Your task to perform on an android device: Open Chrome and go to the settings page Image 0: 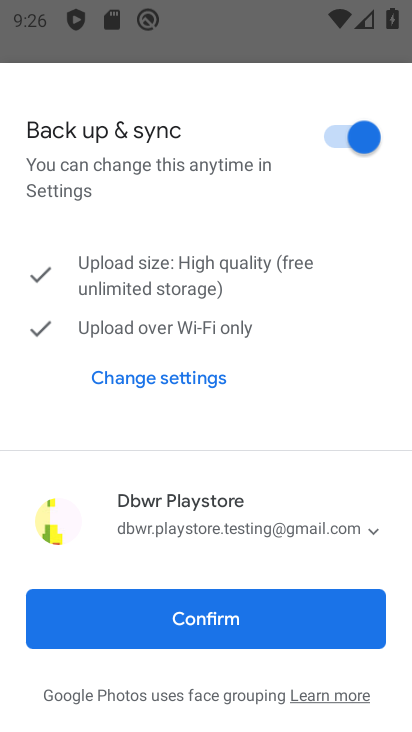
Step 0: press home button
Your task to perform on an android device: Open Chrome and go to the settings page Image 1: 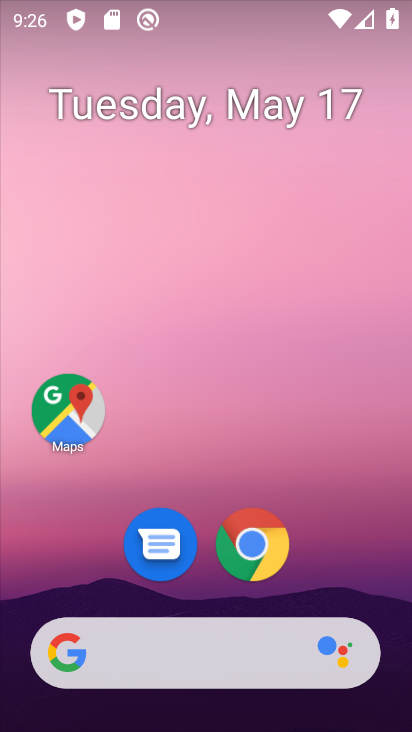
Step 1: click (323, 575)
Your task to perform on an android device: Open Chrome and go to the settings page Image 2: 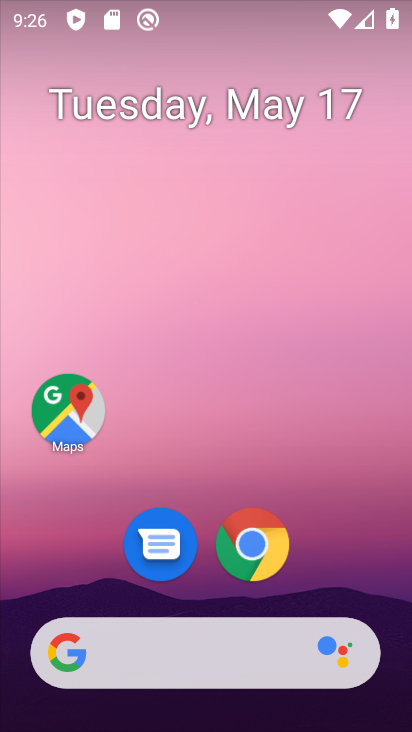
Step 2: click (259, 546)
Your task to perform on an android device: Open Chrome and go to the settings page Image 3: 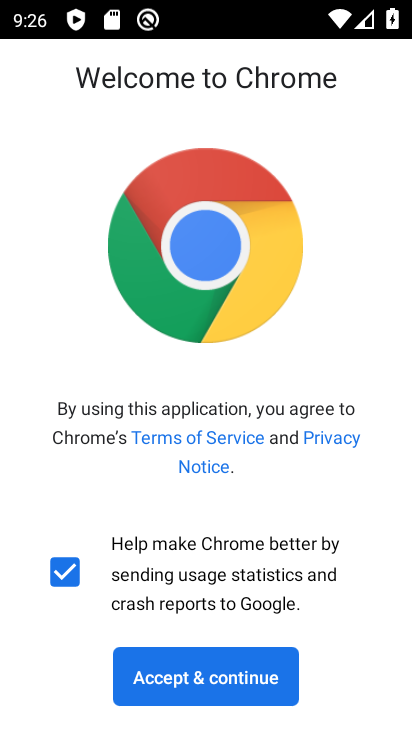
Step 3: click (240, 673)
Your task to perform on an android device: Open Chrome and go to the settings page Image 4: 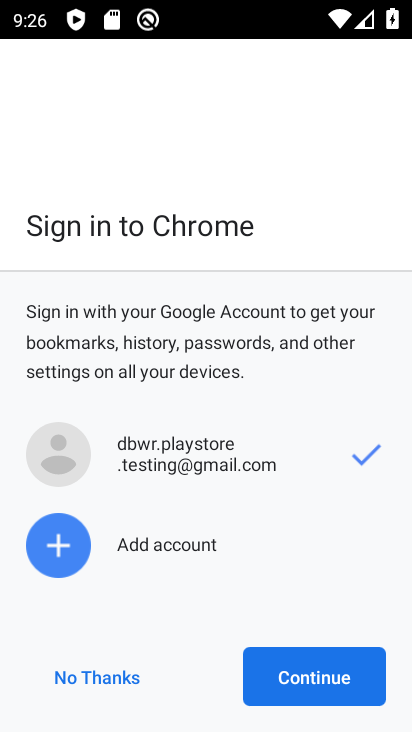
Step 4: click (278, 676)
Your task to perform on an android device: Open Chrome and go to the settings page Image 5: 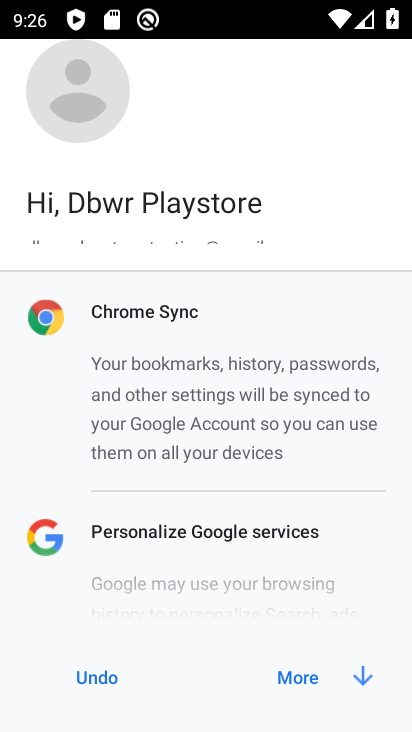
Step 5: click (278, 676)
Your task to perform on an android device: Open Chrome and go to the settings page Image 6: 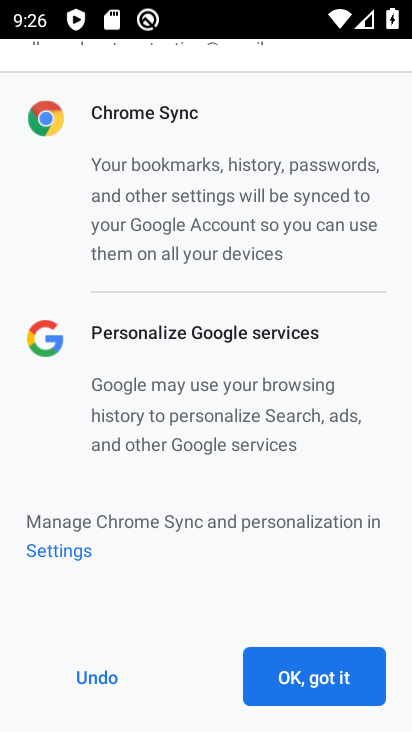
Step 6: click (278, 676)
Your task to perform on an android device: Open Chrome and go to the settings page Image 7: 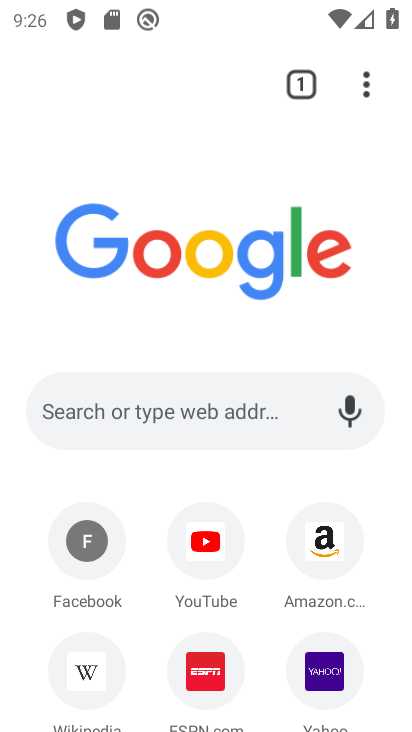
Step 7: click (372, 90)
Your task to perform on an android device: Open Chrome and go to the settings page Image 8: 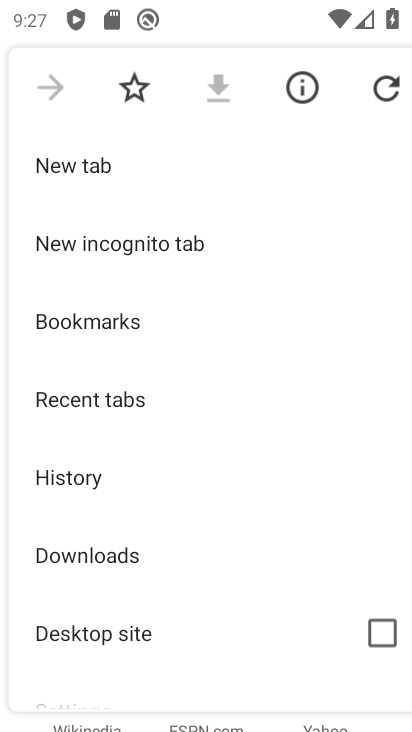
Step 8: drag from (300, 668) to (231, 255)
Your task to perform on an android device: Open Chrome and go to the settings page Image 9: 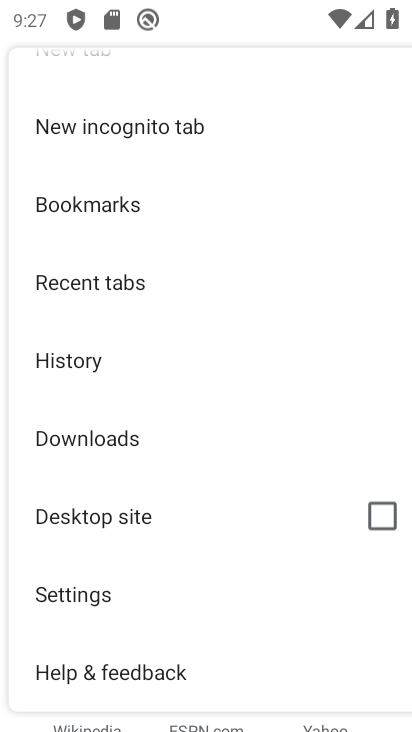
Step 9: click (207, 596)
Your task to perform on an android device: Open Chrome and go to the settings page Image 10: 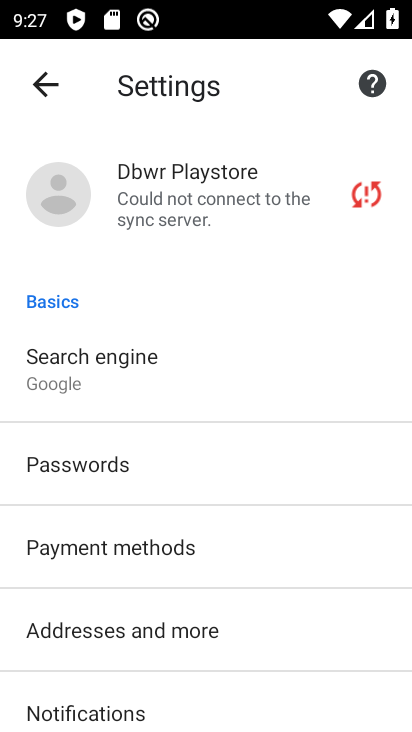
Step 10: task complete